Your task to perform on an android device: turn off smart reply in the gmail app Image 0: 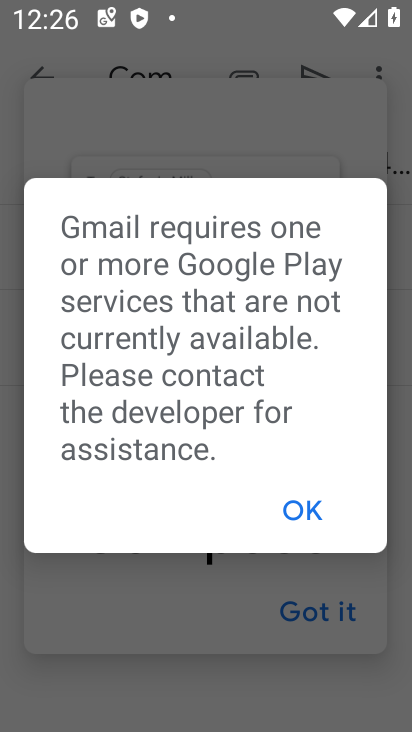
Step 0: press back button
Your task to perform on an android device: turn off smart reply in the gmail app Image 1: 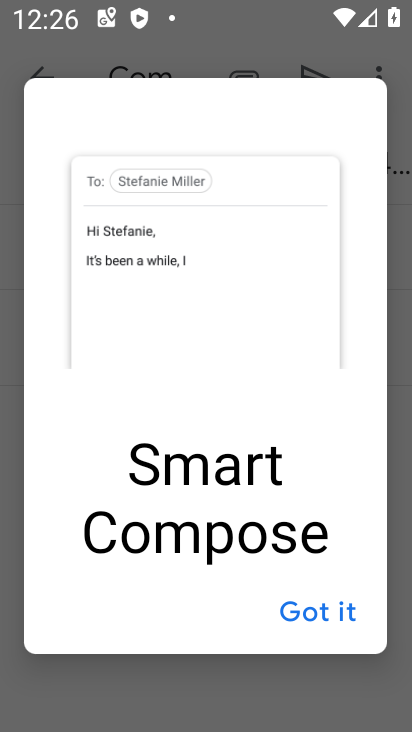
Step 1: press back button
Your task to perform on an android device: turn off smart reply in the gmail app Image 2: 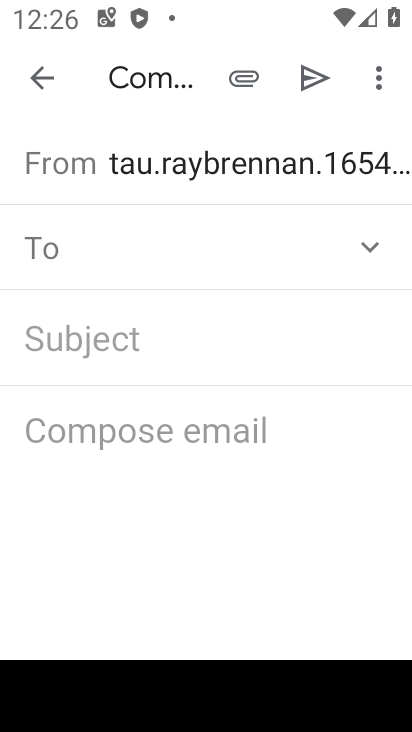
Step 2: press home button
Your task to perform on an android device: turn off smart reply in the gmail app Image 3: 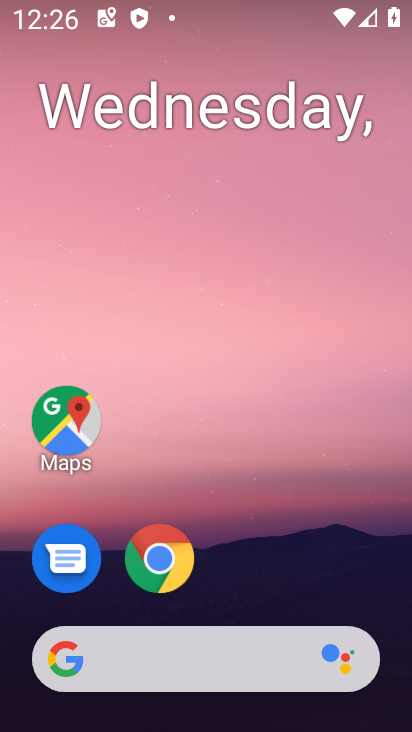
Step 3: drag from (319, 474) to (319, 17)
Your task to perform on an android device: turn off smart reply in the gmail app Image 4: 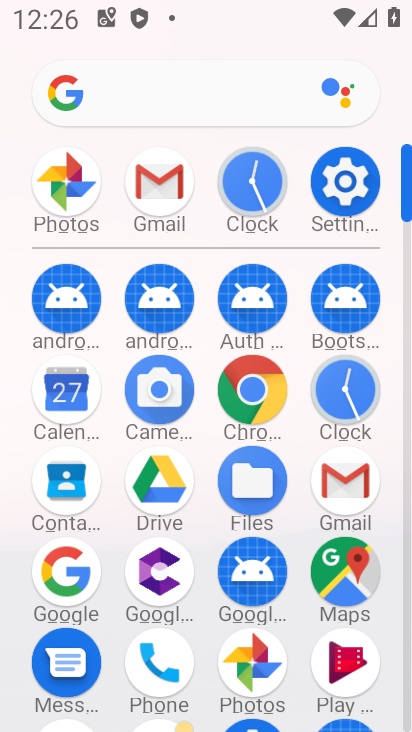
Step 4: click (162, 173)
Your task to perform on an android device: turn off smart reply in the gmail app Image 5: 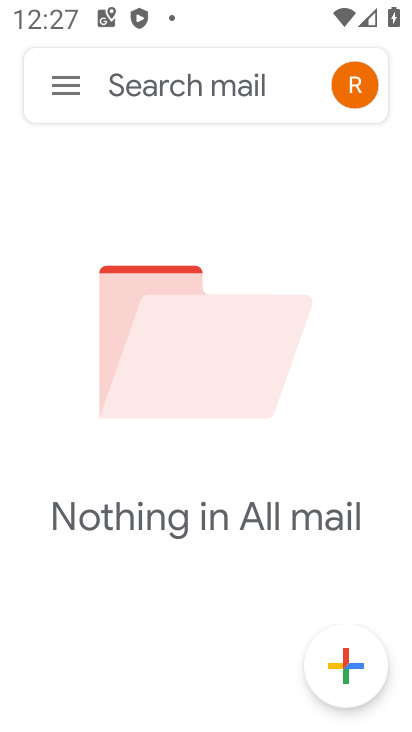
Step 5: click (68, 82)
Your task to perform on an android device: turn off smart reply in the gmail app Image 6: 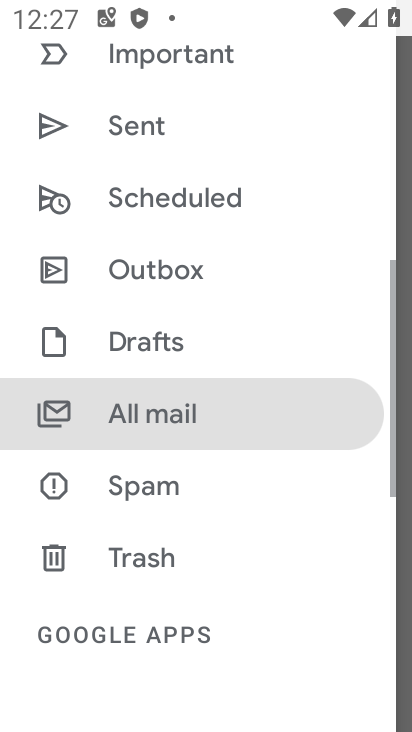
Step 6: drag from (167, 602) to (249, 98)
Your task to perform on an android device: turn off smart reply in the gmail app Image 7: 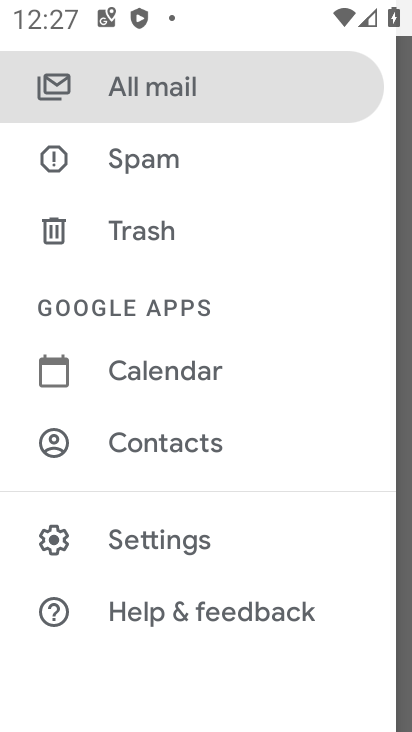
Step 7: click (161, 535)
Your task to perform on an android device: turn off smart reply in the gmail app Image 8: 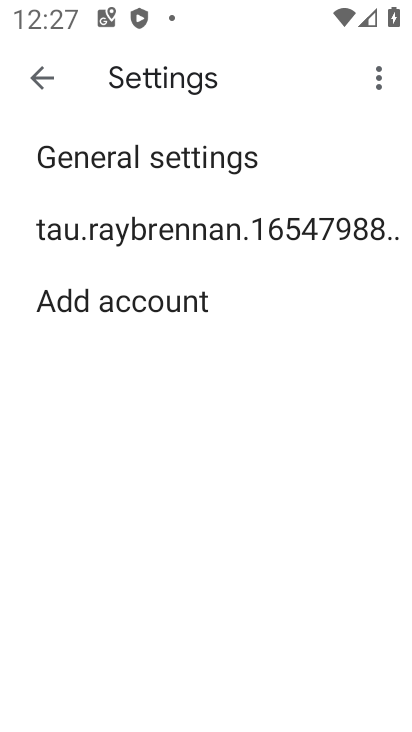
Step 8: click (180, 229)
Your task to perform on an android device: turn off smart reply in the gmail app Image 9: 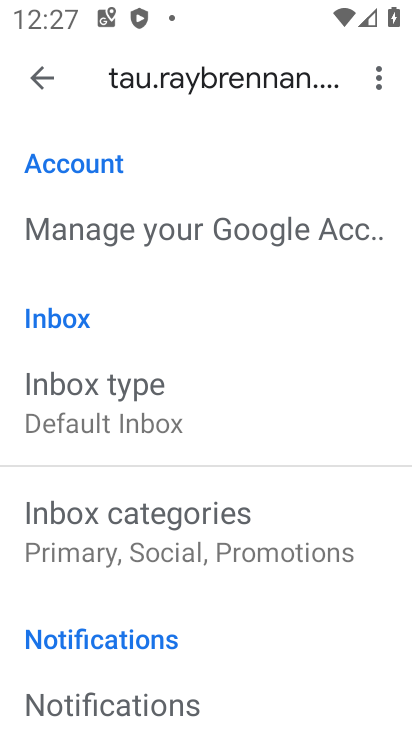
Step 9: drag from (150, 665) to (229, 83)
Your task to perform on an android device: turn off smart reply in the gmail app Image 10: 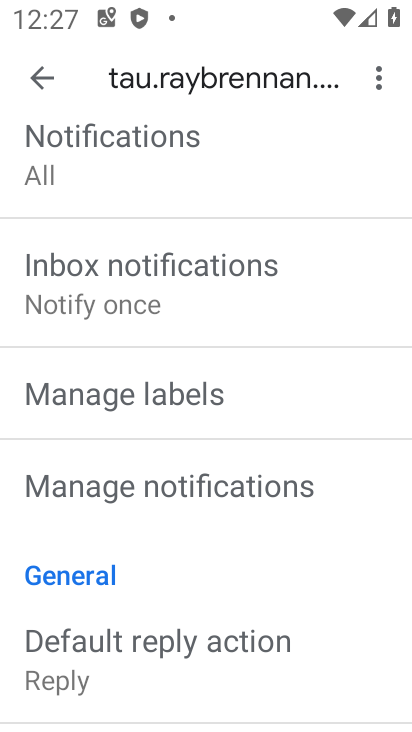
Step 10: drag from (178, 664) to (227, 98)
Your task to perform on an android device: turn off smart reply in the gmail app Image 11: 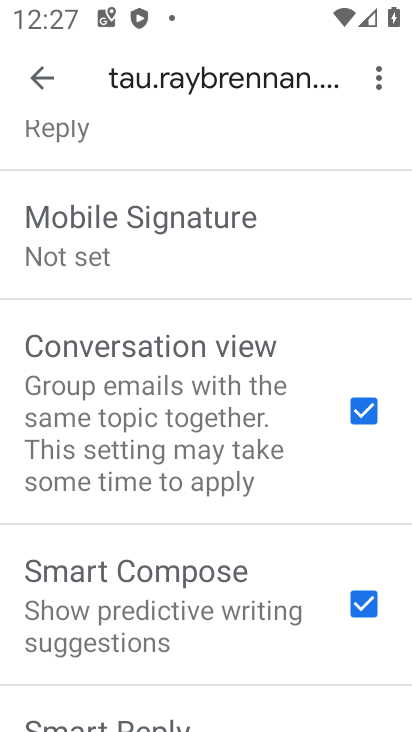
Step 11: drag from (210, 616) to (270, 186)
Your task to perform on an android device: turn off smart reply in the gmail app Image 12: 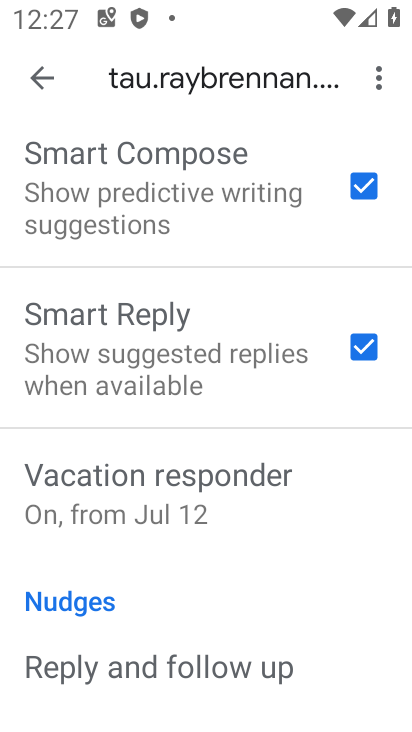
Step 12: click (371, 353)
Your task to perform on an android device: turn off smart reply in the gmail app Image 13: 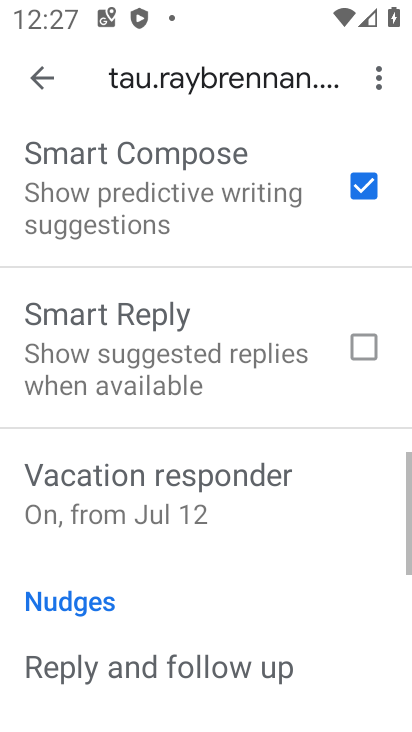
Step 13: task complete